Your task to perform on an android device: toggle priority inbox in the gmail app Image 0: 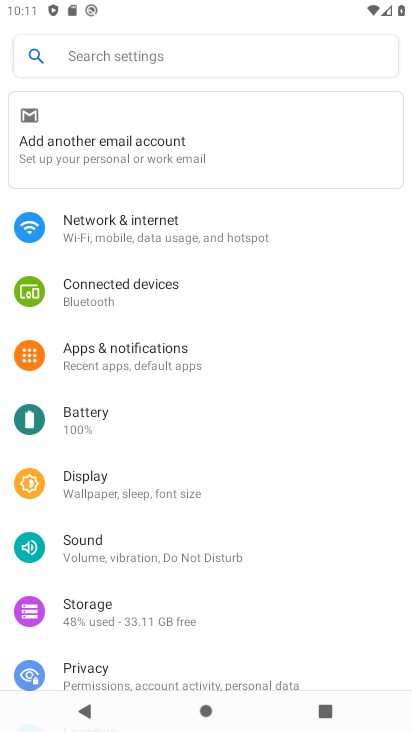
Step 0: press home button
Your task to perform on an android device: toggle priority inbox in the gmail app Image 1: 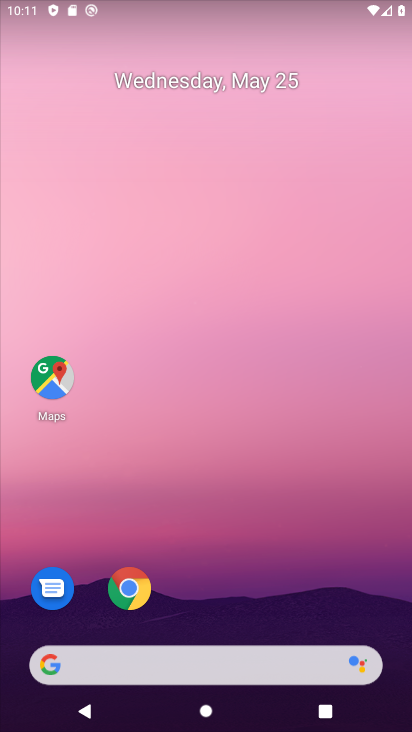
Step 1: drag from (274, 581) to (265, 131)
Your task to perform on an android device: toggle priority inbox in the gmail app Image 2: 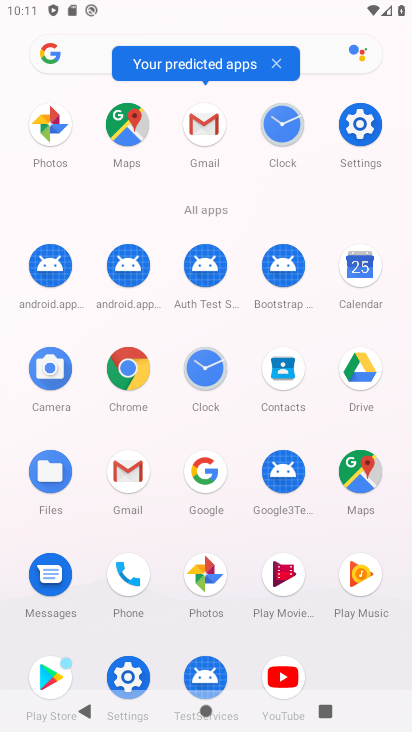
Step 2: click (198, 139)
Your task to perform on an android device: toggle priority inbox in the gmail app Image 3: 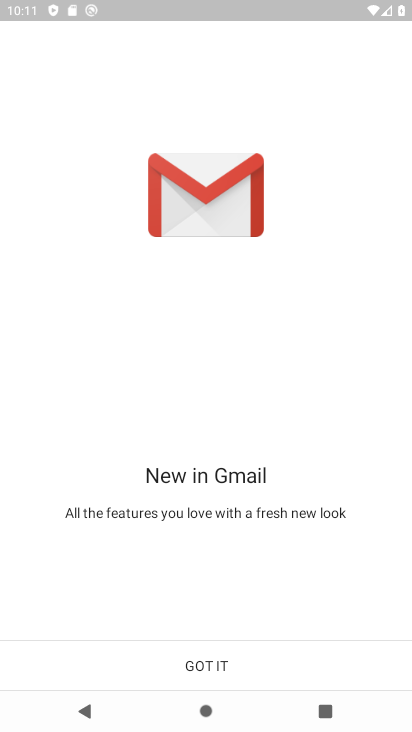
Step 3: click (261, 661)
Your task to perform on an android device: toggle priority inbox in the gmail app Image 4: 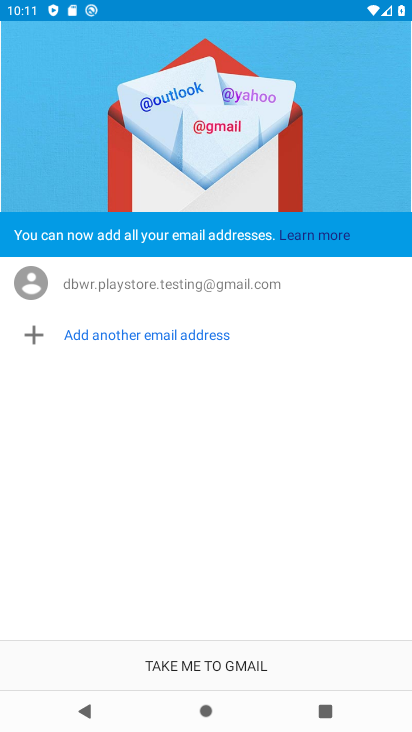
Step 4: click (163, 654)
Your task to perform on an android device: toggle priority inbox in the gmail app Image 5: 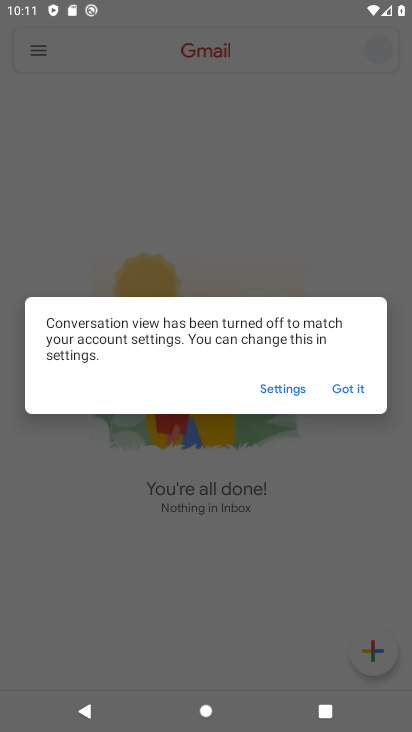
Step 5: click (353, 389)
Your task to perform on an android device: toggle priority inbox in the gmail app Image 6: 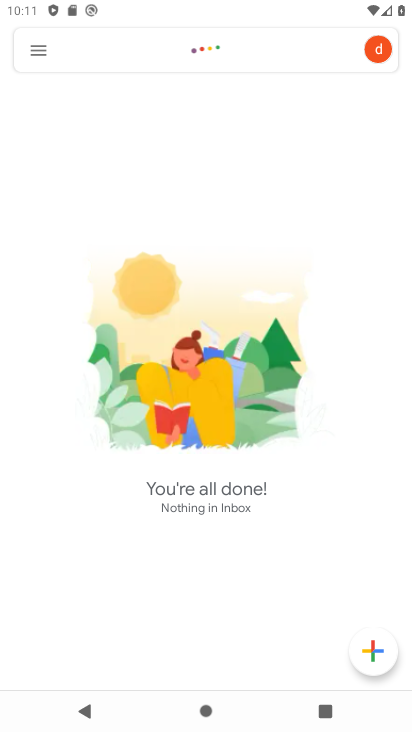
Step 6: click (49, 62)
Your task to perform on an android device: toggle priority inbox in the gmail app Image 7: 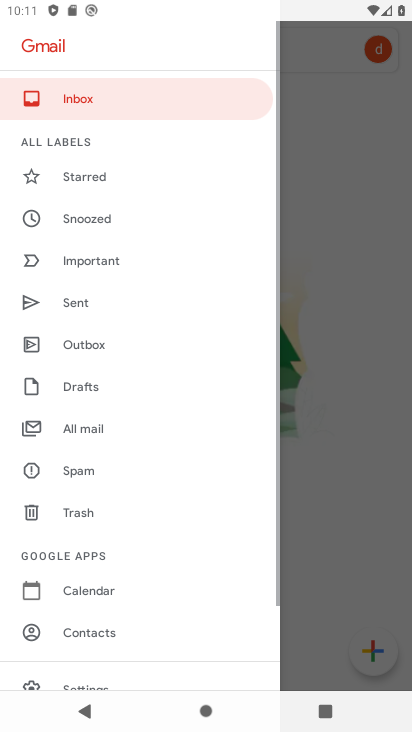
Step 7: drag from (117, 608) to (229, 179)
Your task to perform on an android device: toggle priority inbox in the gmail app Image 8: 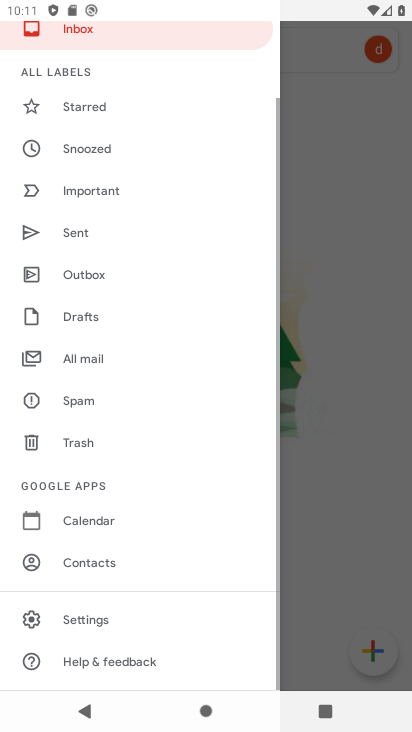
Step 8: click (104, 620)
Your task to perform on an android device: toggle priority inbox in the gmail app Image 9: 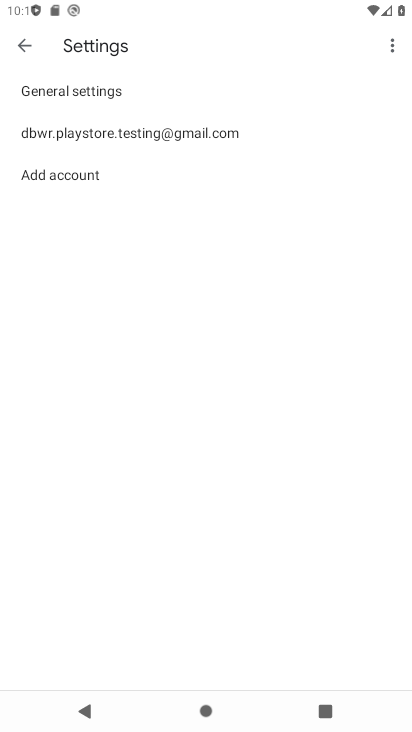
Step 9: click (189, 136)
Your task to perform on an android device: toggle priority inbox in the gmail app Image 10: 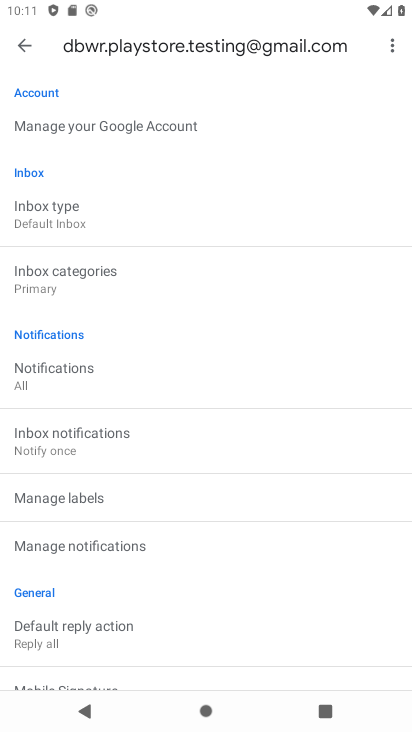
Step 10: click (86, 219)
Your task to perform on an android device: toggle priority inbox in the gmail app Image 11: 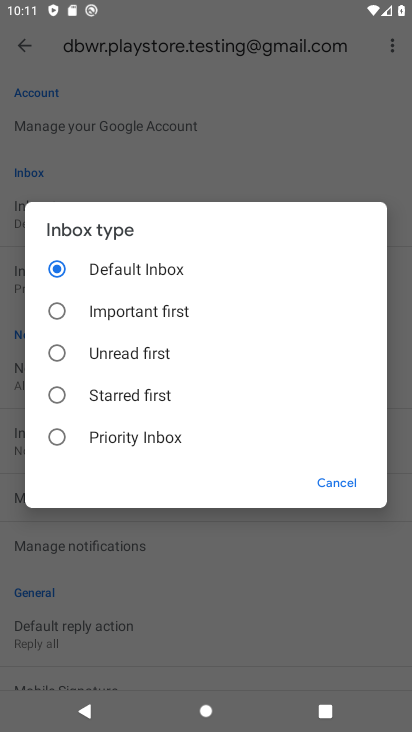
Step 11: click (107, 440)
Your task to perform on an android device: toggle priority inbox in the gmail app Image 12: 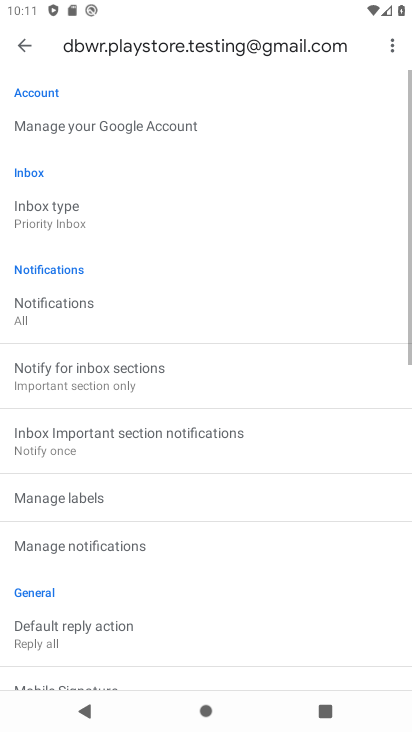
Step 12: task complete